Your task to perform on an android device: Open Chrome and go to settings Image 0: 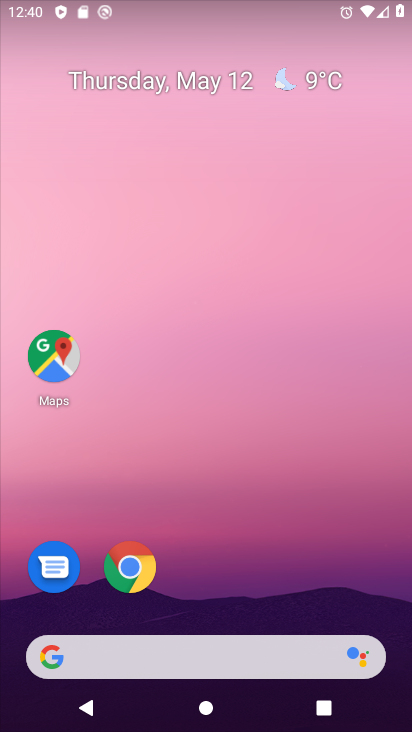
Step 0: click (135, 574)
Your task to perform on an android device: Open Chrome and go to settings Image 1: 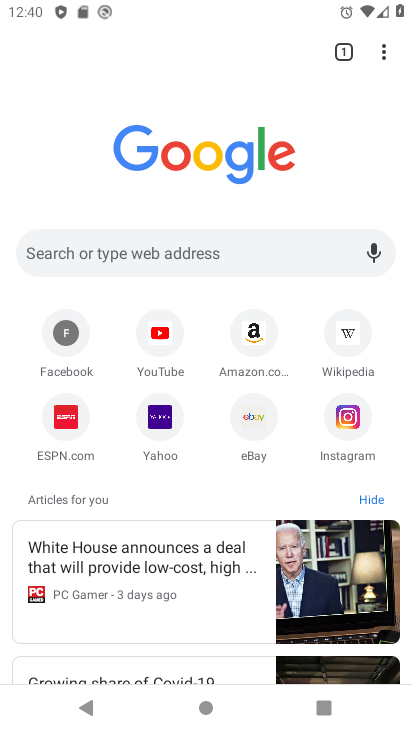
Step 1: task complete